Your task to perform on an android device: snooze an email in the gmail app Image 0: 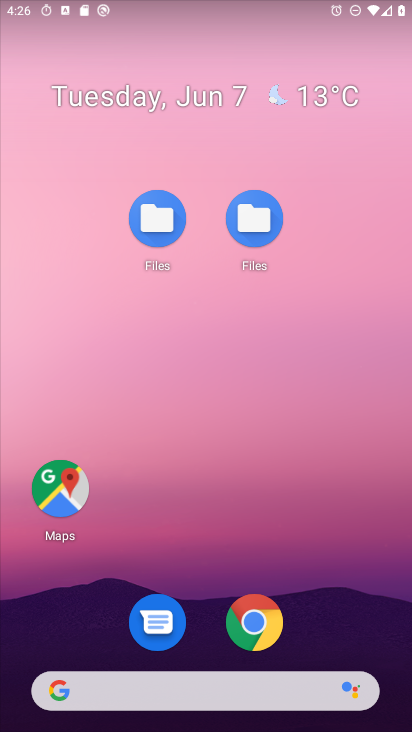
Step 0: drag from (376, 617) to (388, 223)
Your task to perform on an android device: snooze an email in the gmail app Image 1: 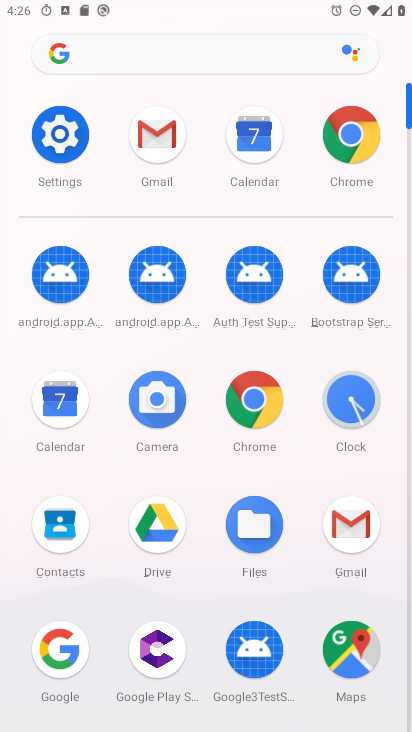
Step 1: click (152, 148)
Your task to perform on an android device: snooze an email in the gmail app Image 2: 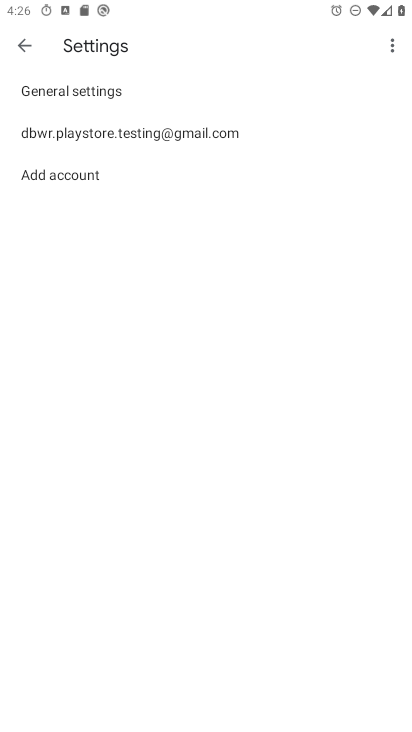
Step 2: click (103, 90)
Your task to perform on an android device: snooze an email in the gmail app Image 3: 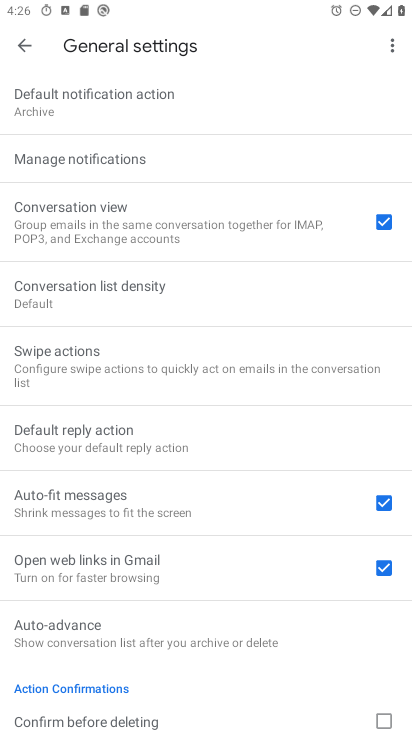
Step 3: click (19, 36)
Your task to perform on an android device: snooze an email in the gmail app Image 4: 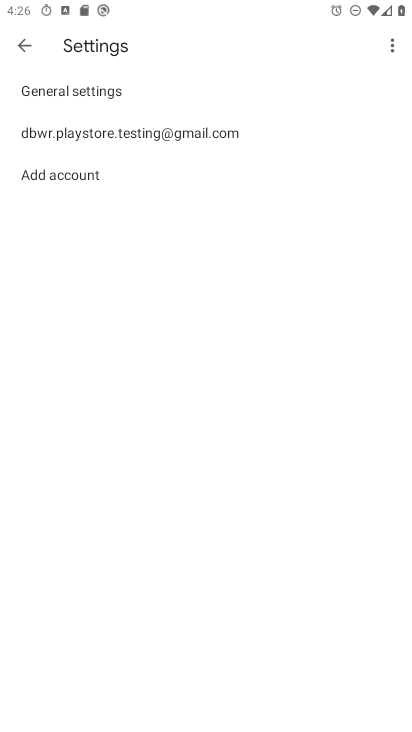
Step 4: click (12, 48)
Your task to perform on an android device: snooze an email in the gmail app Image 5: 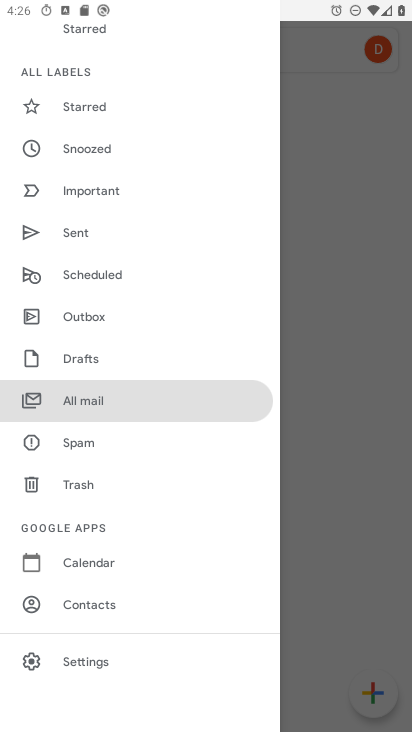
Step 5: click (94, 149)
Your task to perform on an android device: snooze an email in the gmail app Image 6: 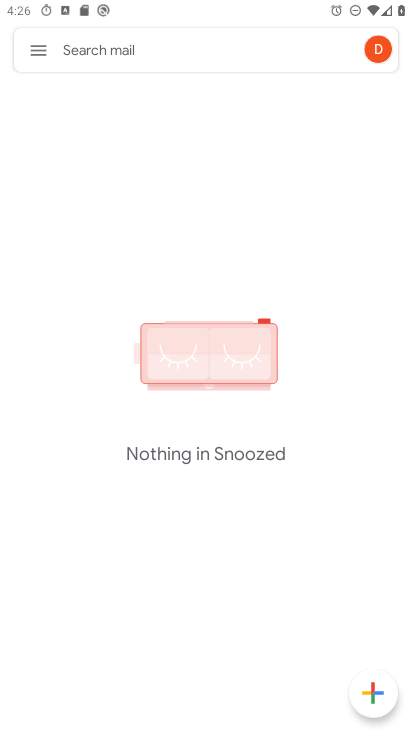
Step 6: task complete